Your task to perform on an android device: open app "Messages" (install if not already installed) Image 0: 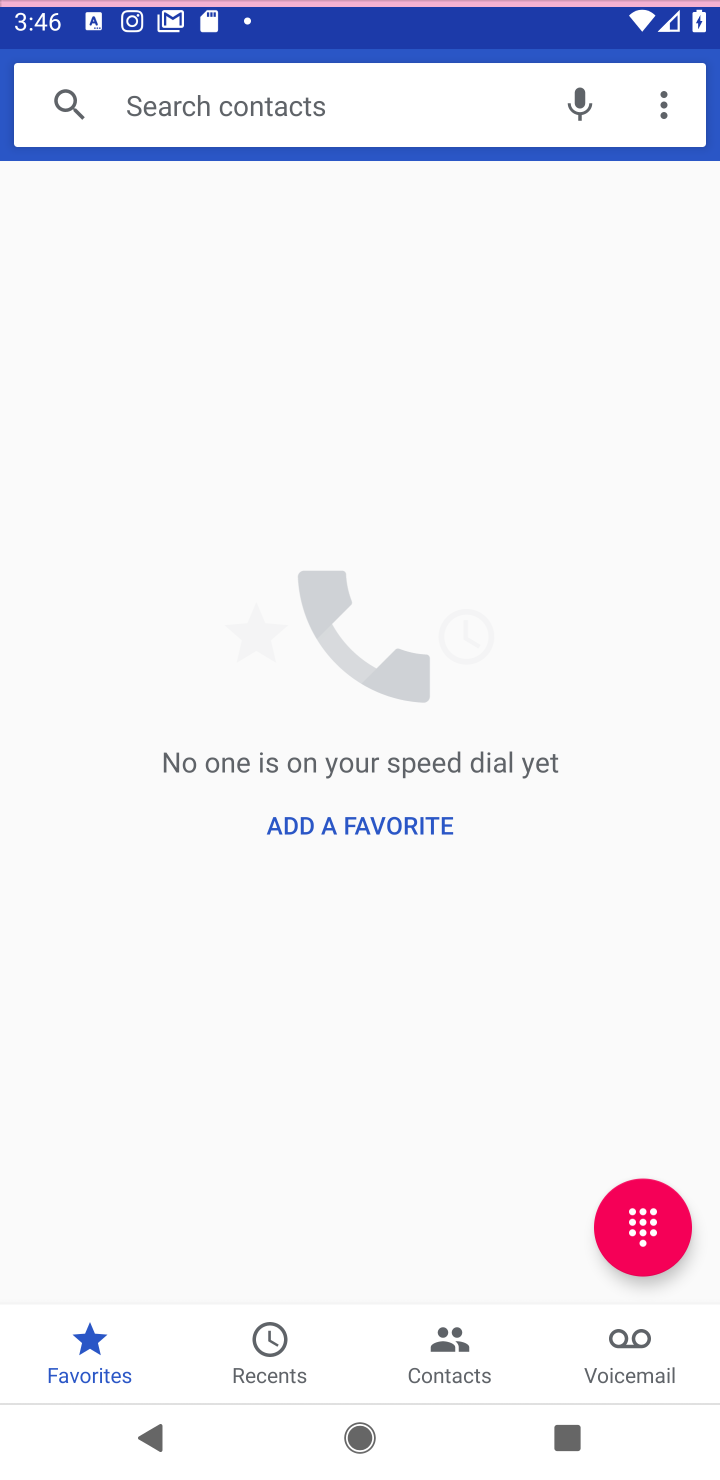
Step 0: press home button
Your task to perform on an android device: open app "Messages" (install if not already installed) Image 1: 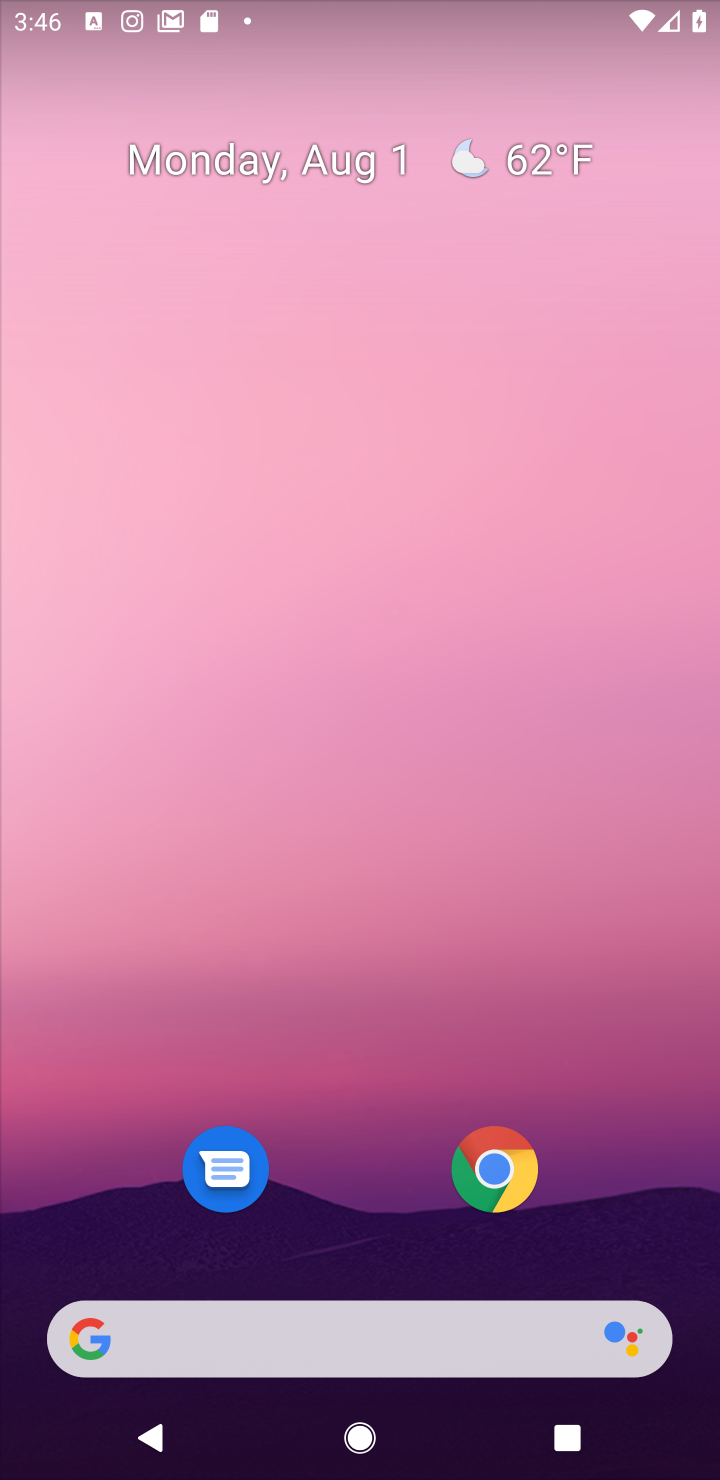
Step 1: click (339, 90)
Your task to perform on an android device: open app "Messages" (install if not already installed) Image 2: 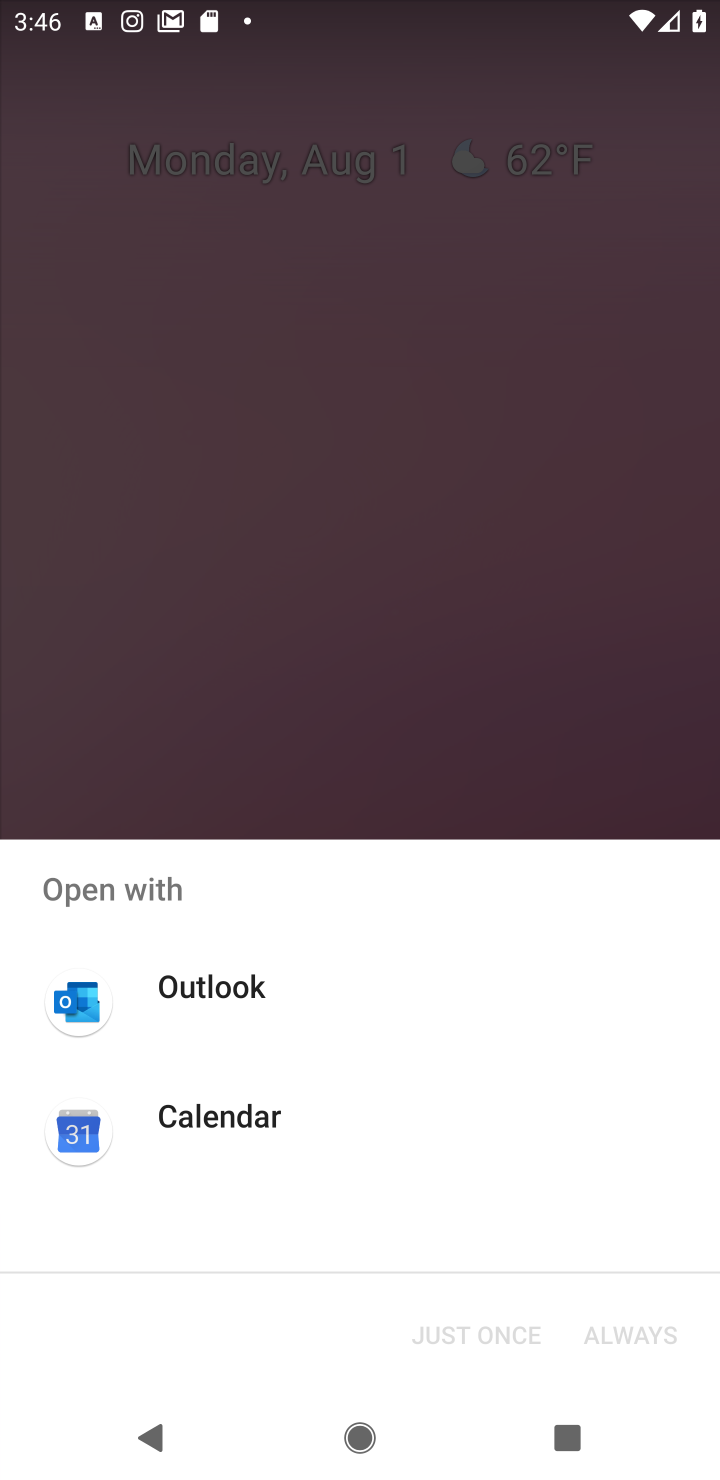
Step 2: press home button
Your task to perform on an android device: open app "Messages" (install if not already installed) Image 3: 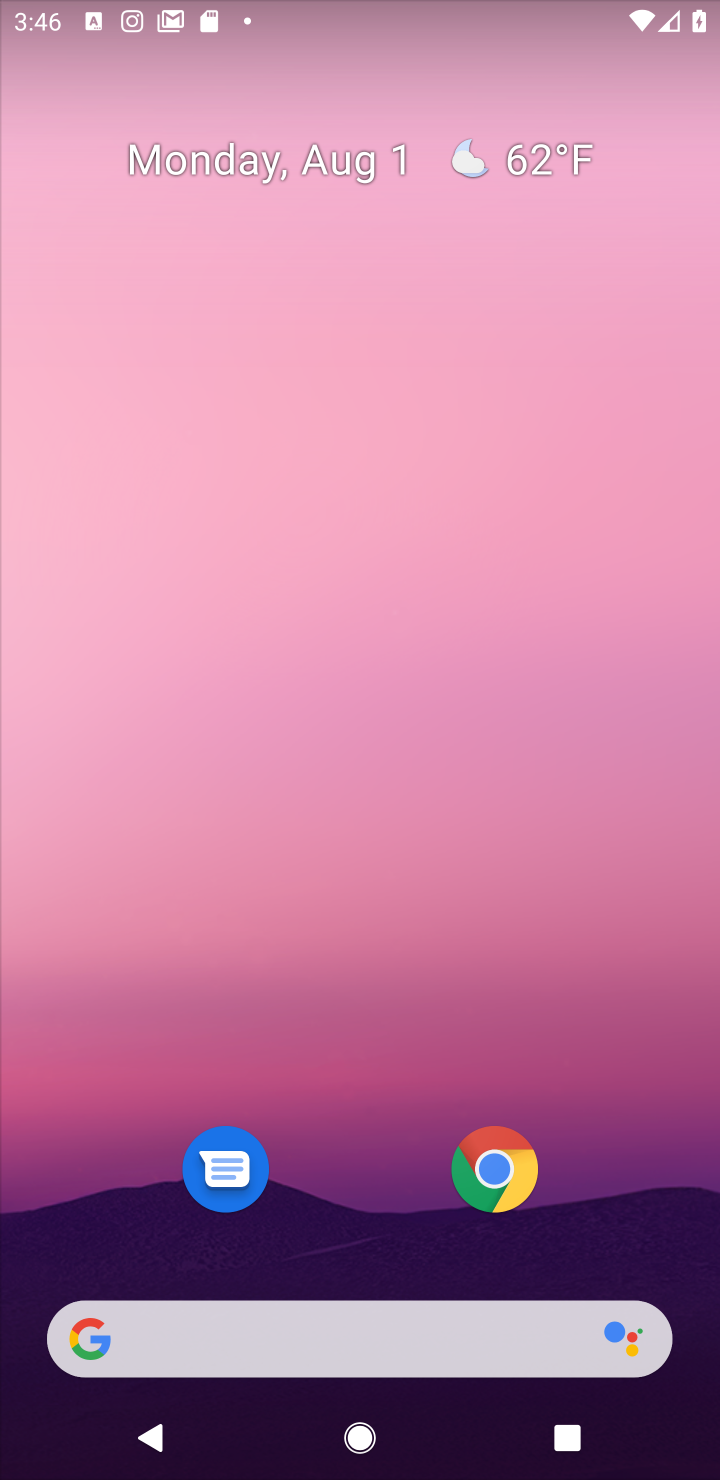
Step 3: drag from (336, 1056) to (437, 333)
Your task to perform on an android device: open app "Messages" (install if not already installed) Image 4: 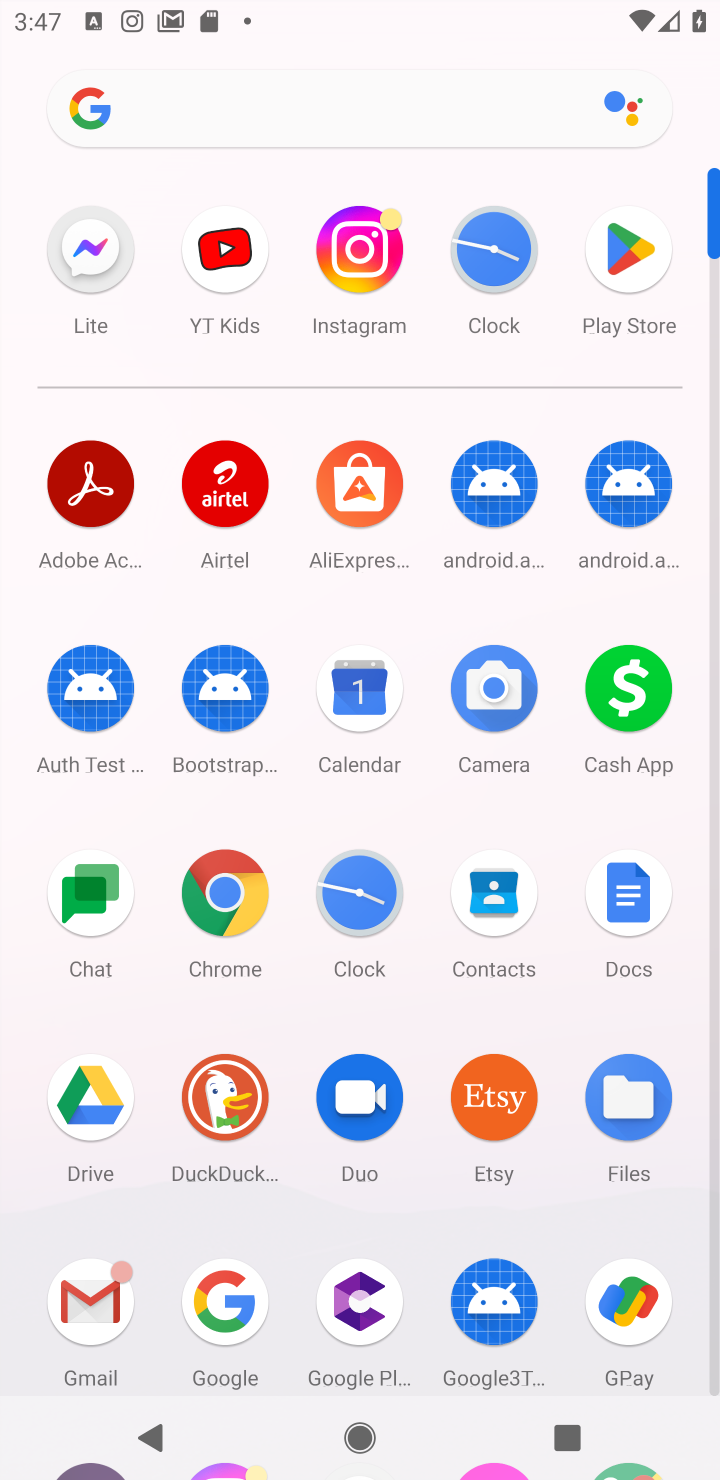
Step 4: click (610, 269)
Your task to perform on an android device: open app "Messages" (install if not already installed) Image 5: 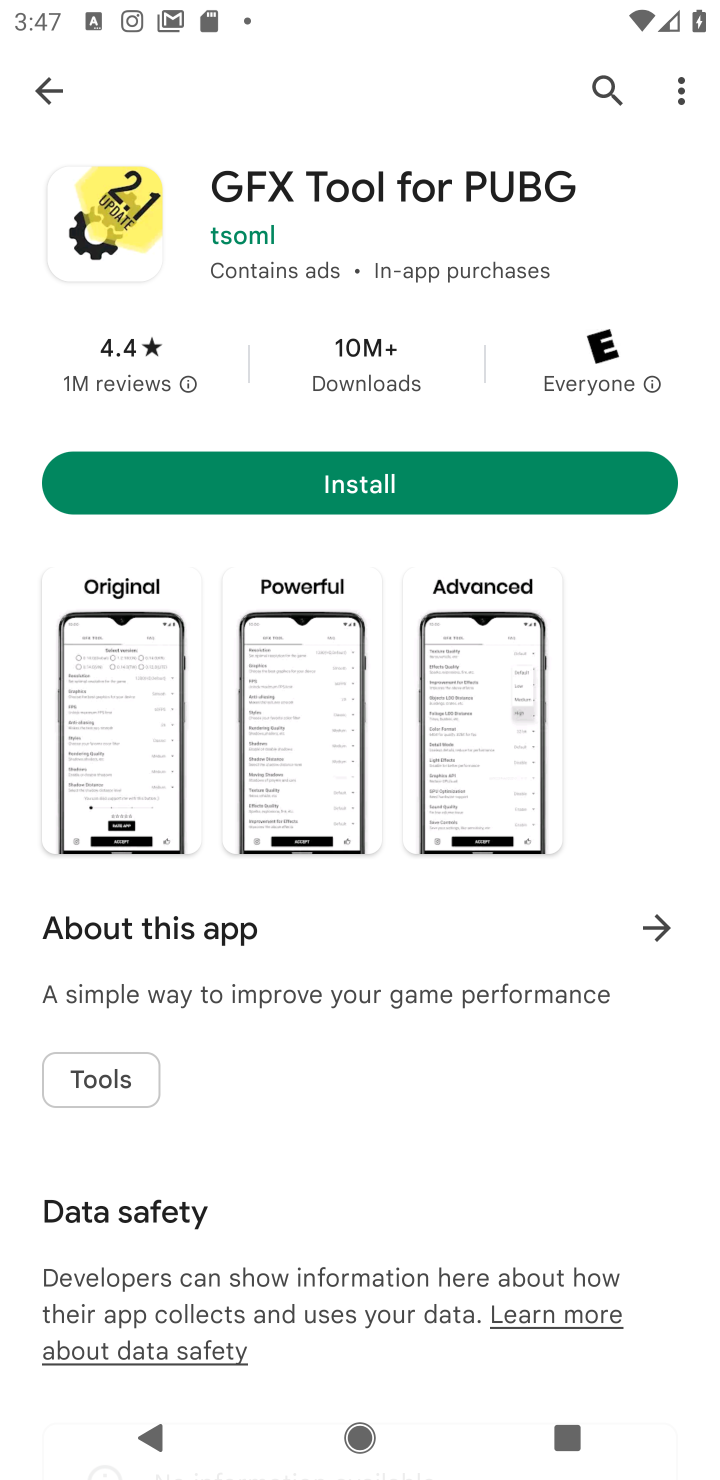
Step 5: click (50, 79)
Your task to perform on an android device: open app "Messages" (install if not already installed) Image 6: 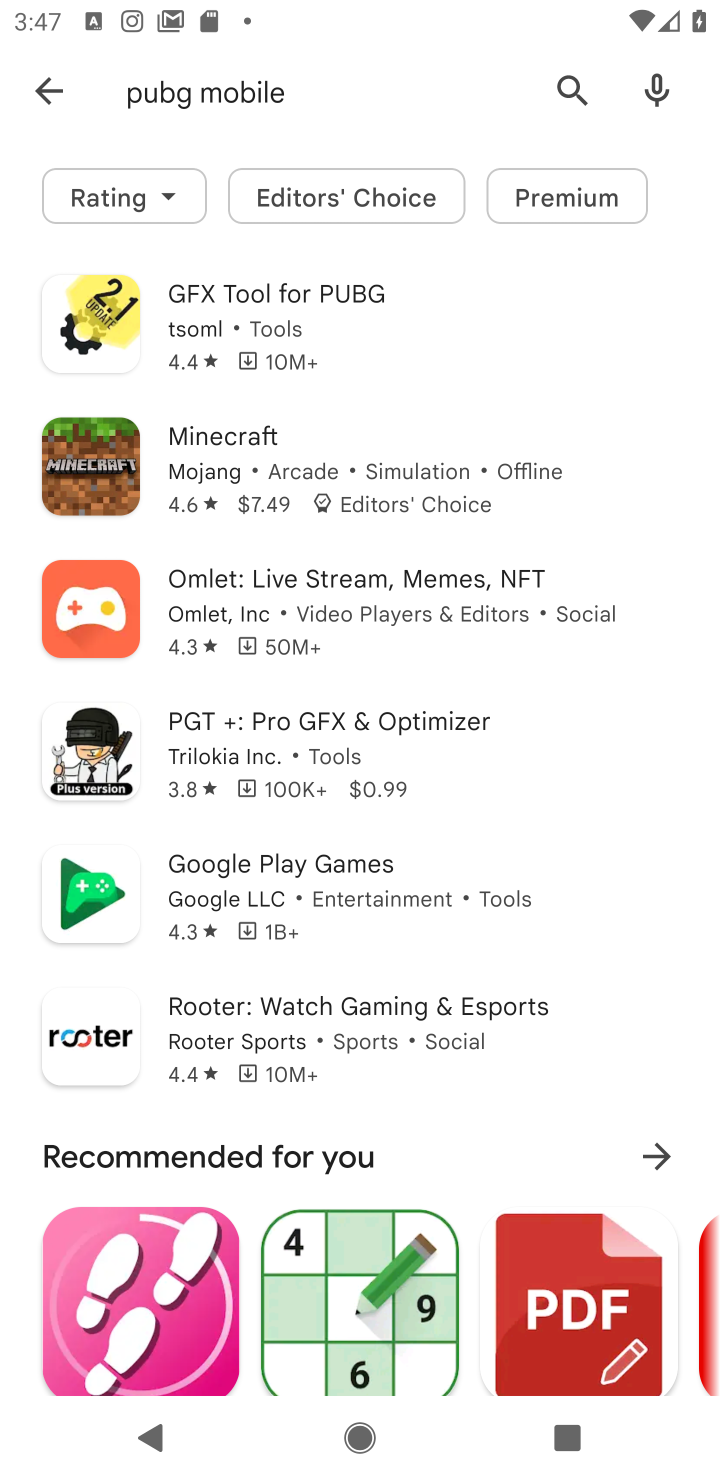
Step 6: click (32, 82)
Your task to perform on an android device: open app "Messages" (install if not already installed) Image 7: 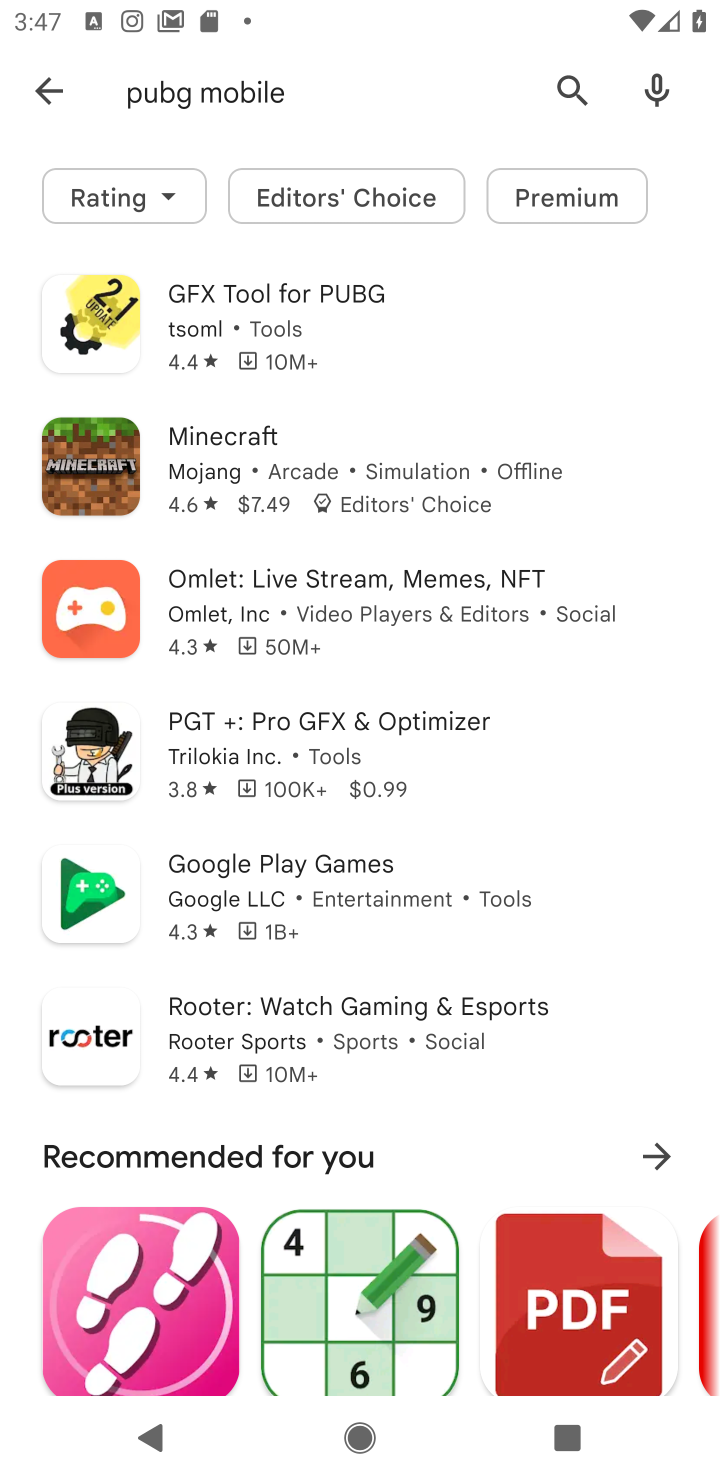
Step 7: click (58, 92)
Your task to perform on an android device: open app "Messages" (install if not already installed) Image 8: 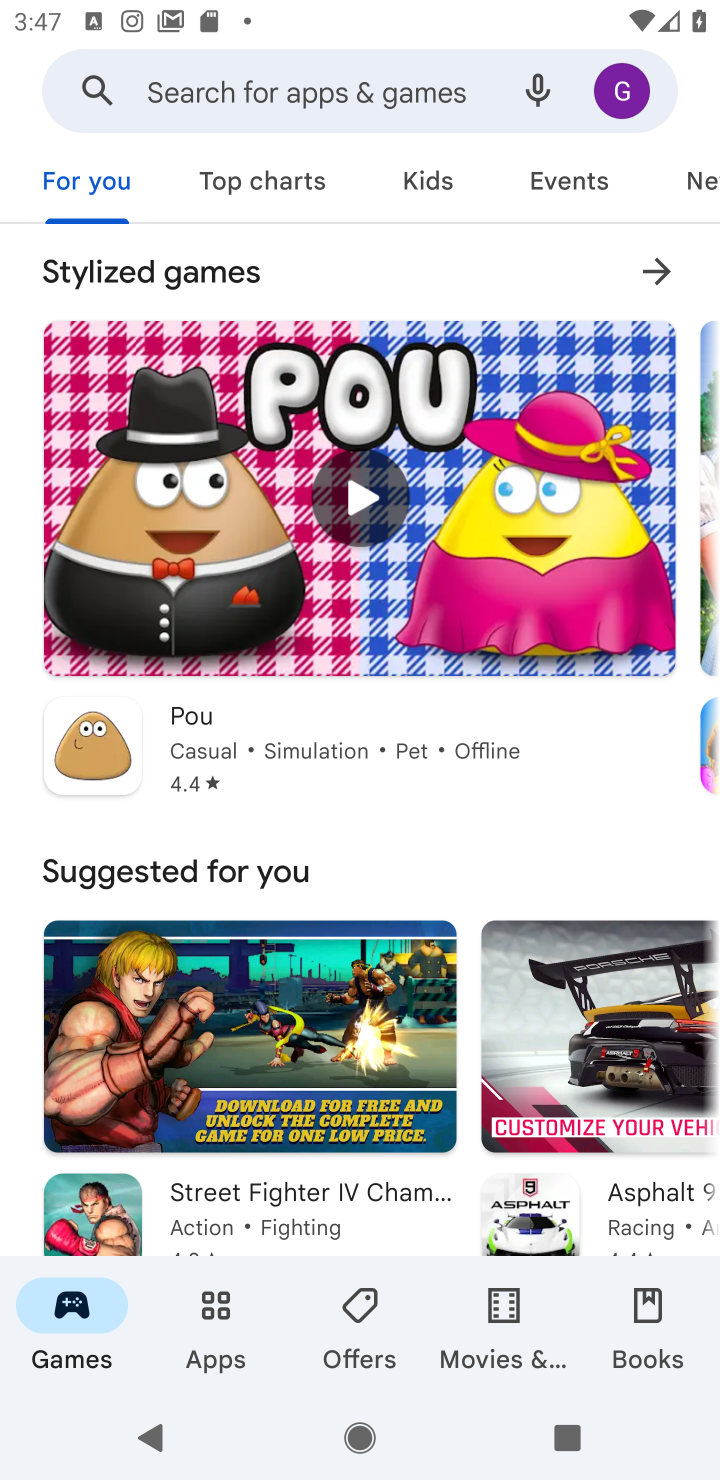
Step 8: click (266, 108)
Your task to perform on an android device: open app "Messages" (install if not already installed) Image 9: 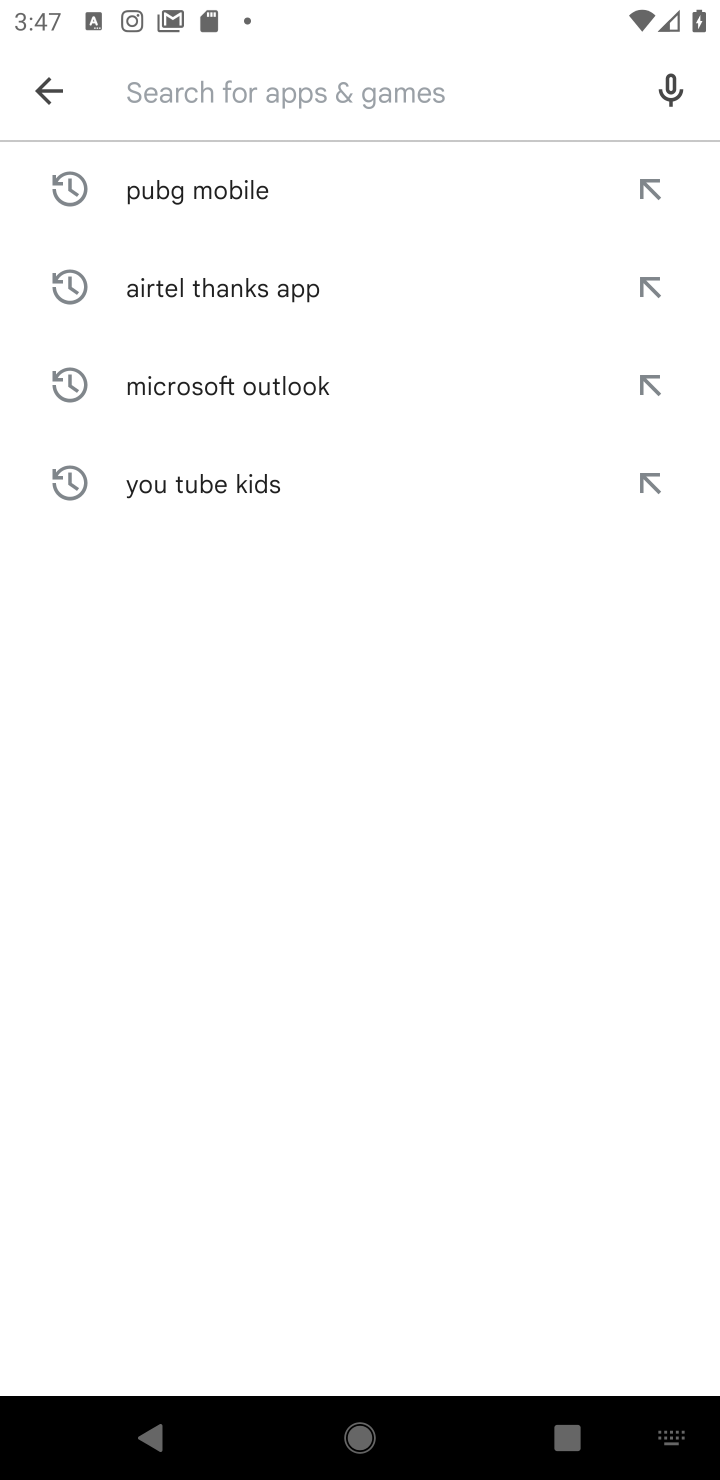
Step 9: type ""
Your task to perform on an android device: open app "Messages" (install if not already installed) Image 10: 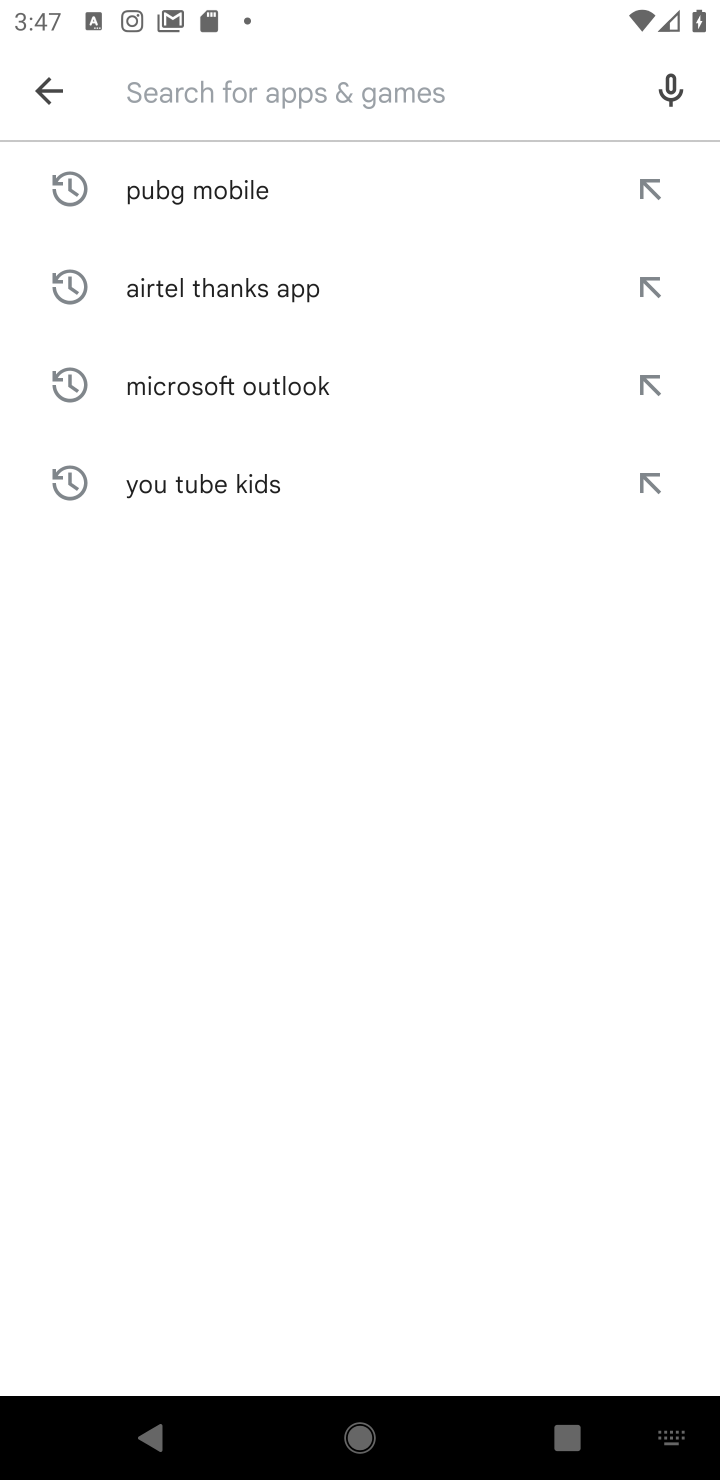
Step 10: type "Messages"
Your task to perform on an android device: open app "Messages" (install if not already installed) Image 11: 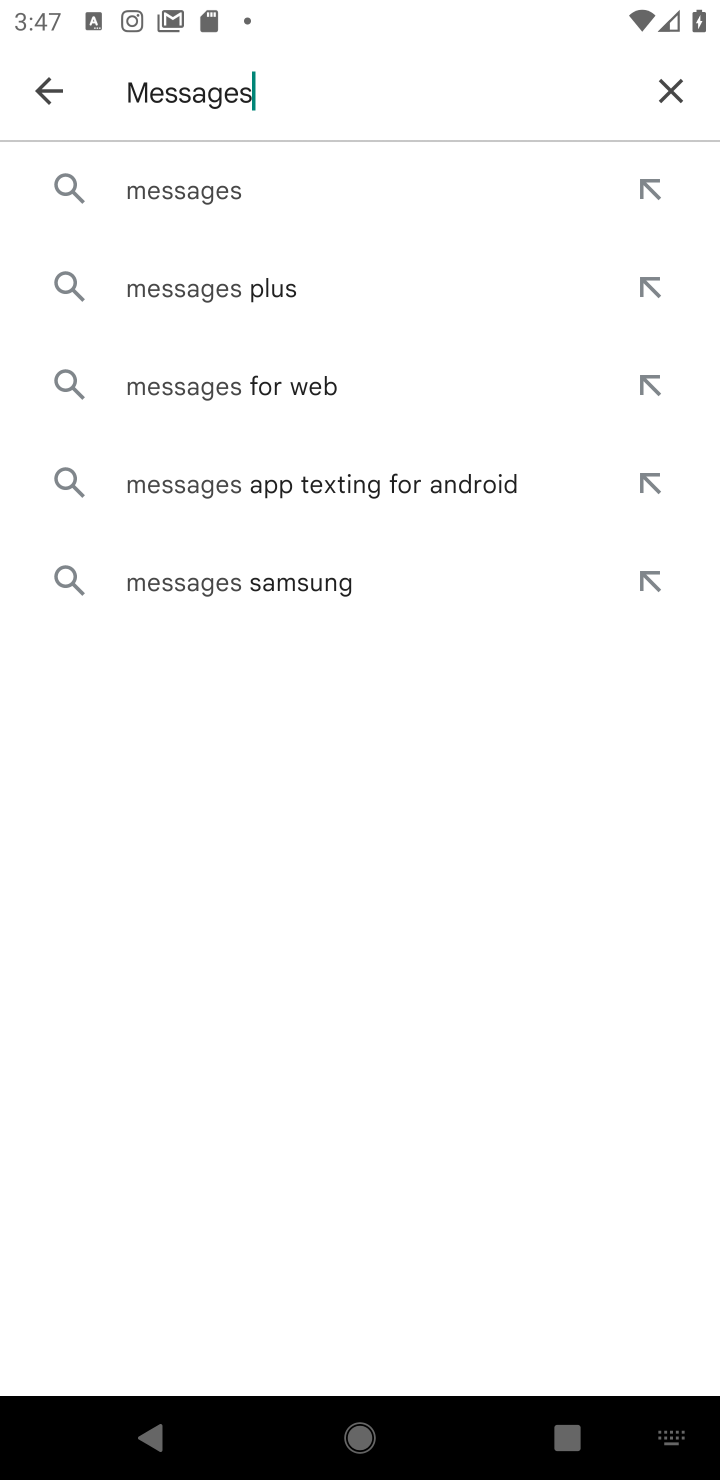
Step 11: click (206, 182)
Your task to perform on an android device: open app "Messages" (install if not already installed) Image 12: 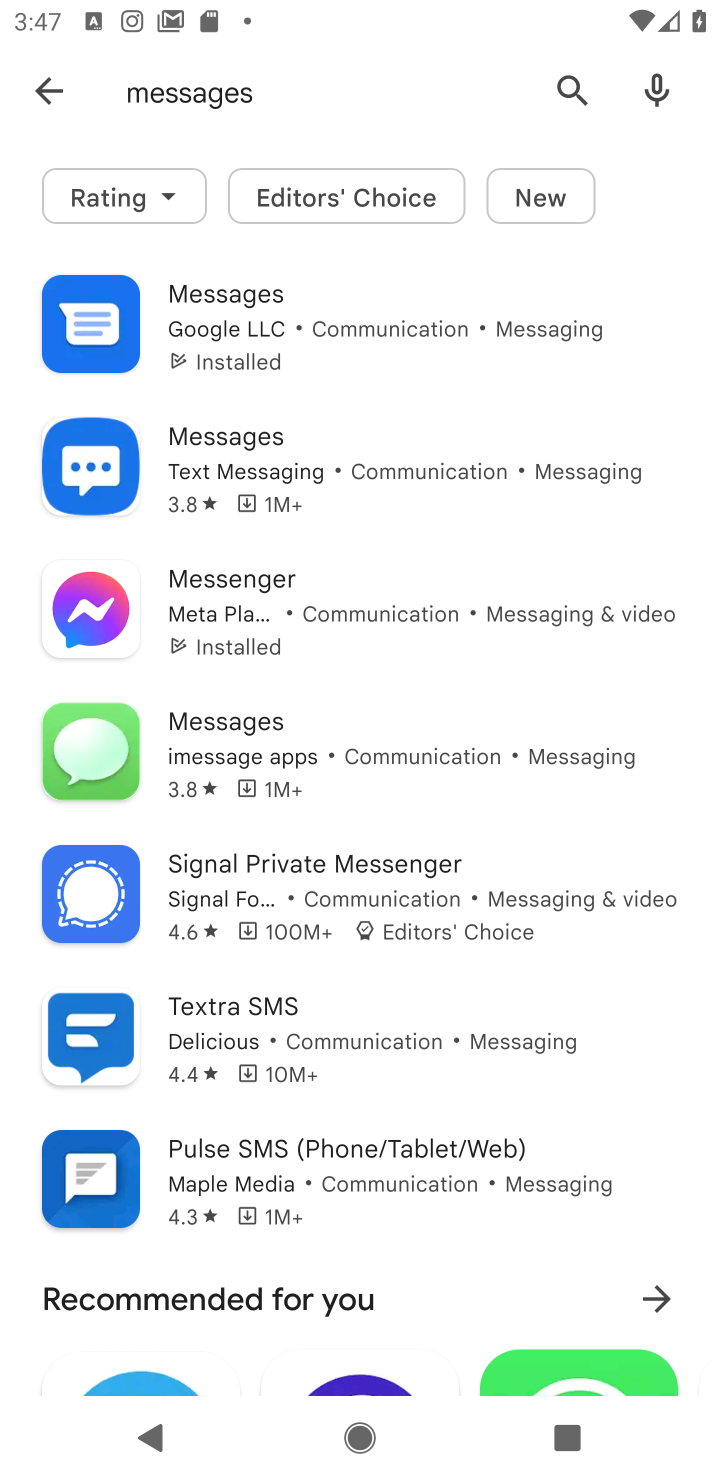
Step 12: click (248, 341)
Your task to perform on an android device: open app "Messages" (install if not already installed) Image 13: 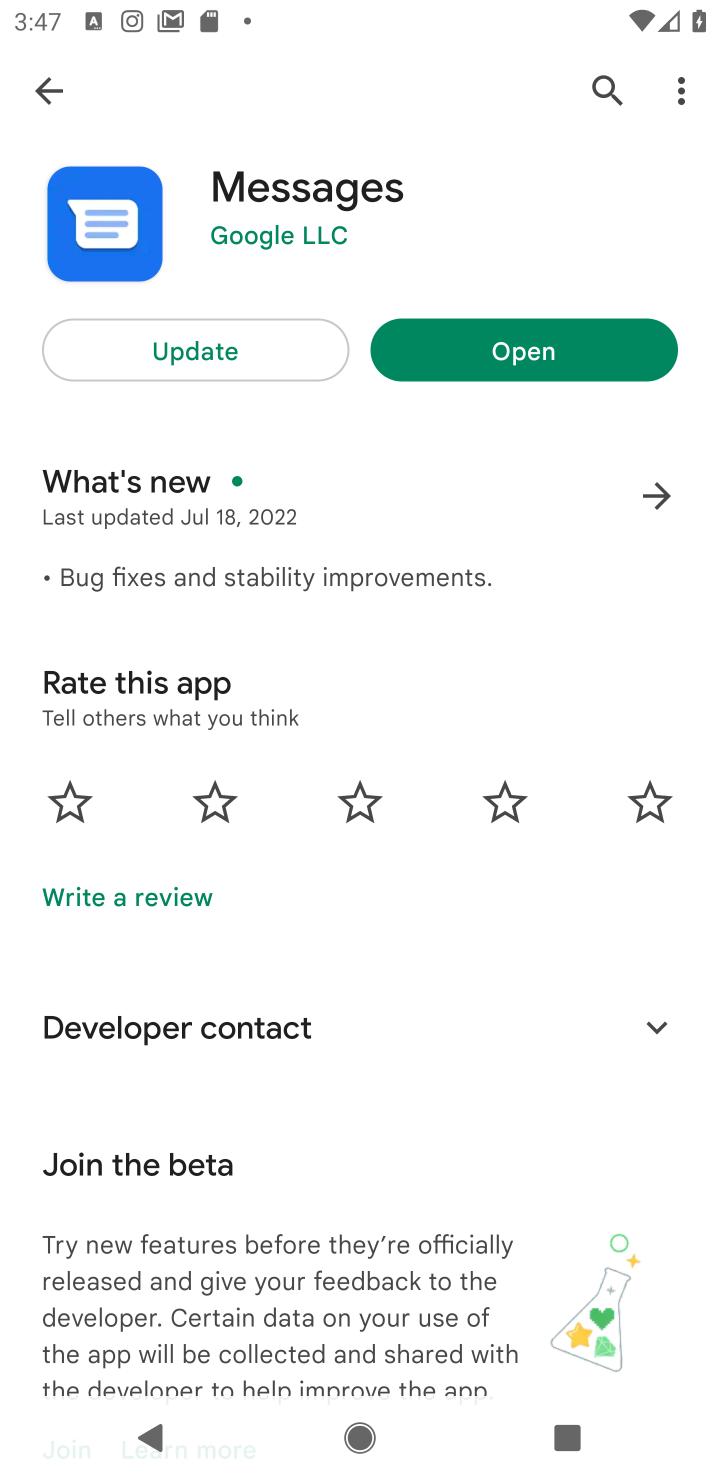
Step 13: click (627, 337)
Your task to perform on an android device: open app "Messages" (install if not already installed) Image 14: 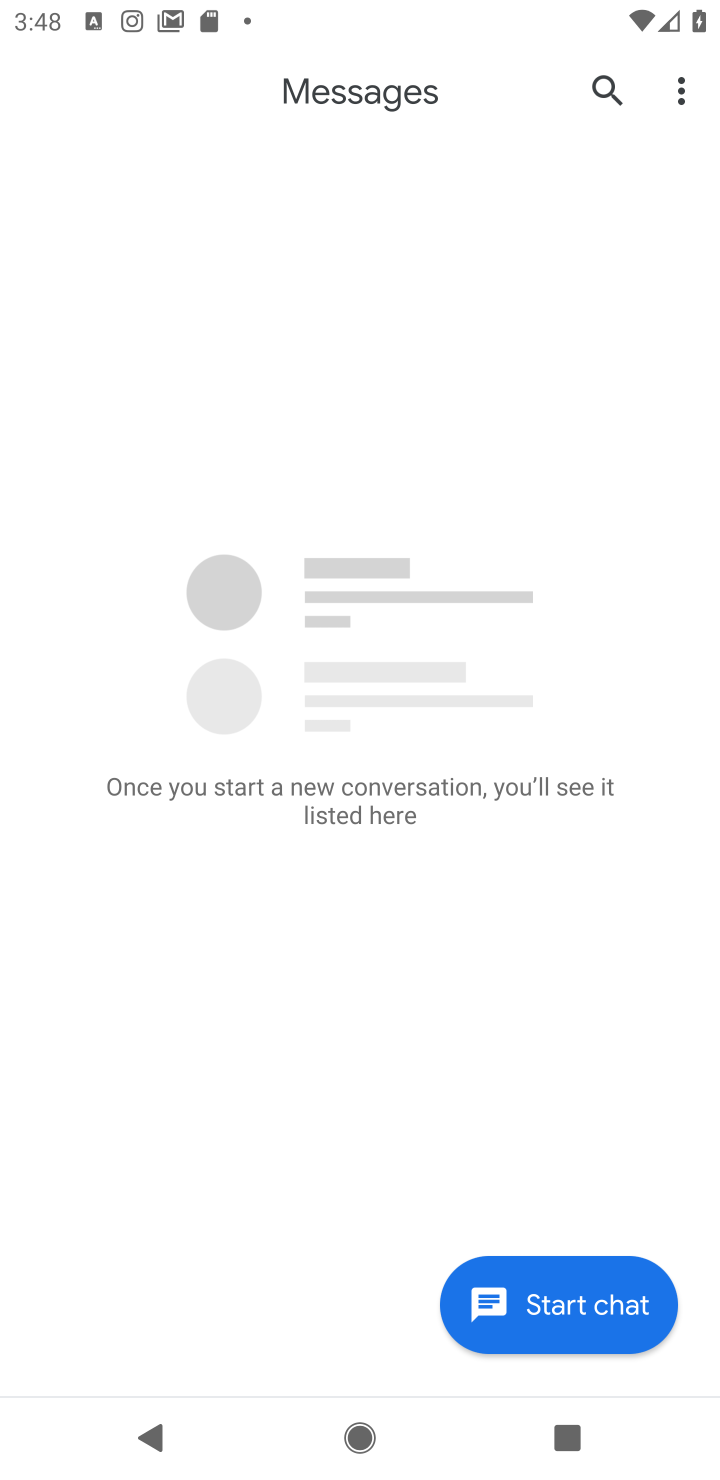
Step 14: task complete